Your task to perform on an android device: Open ESPN.com Image 0: 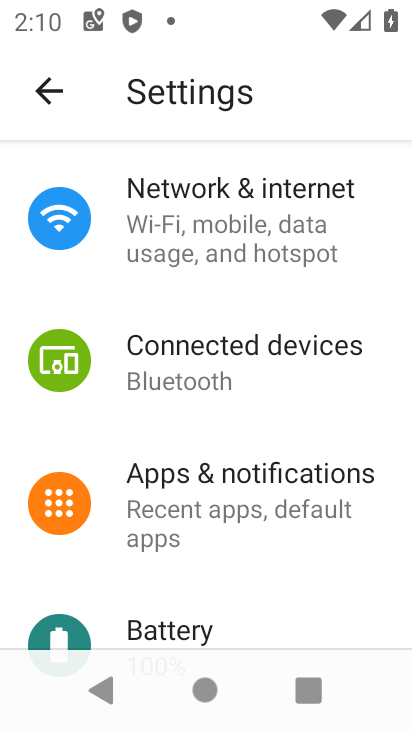
Step 0: press home button
Your task to perform on an android device: Open ESPN.com Image 1: 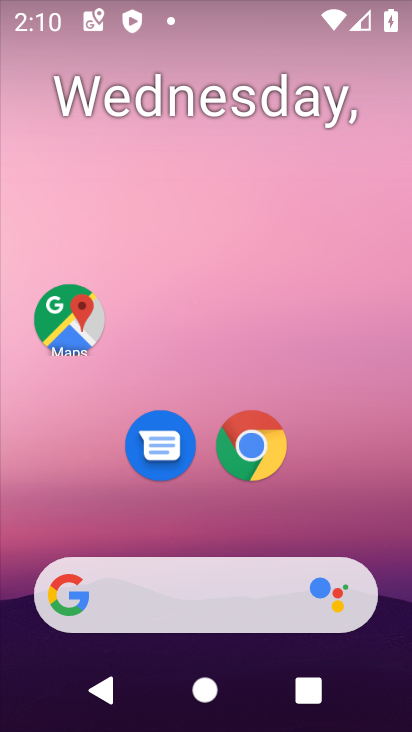
Step 1: click (251, 430)
Your task to perform on an android device: Open ESPN.com Image 2: 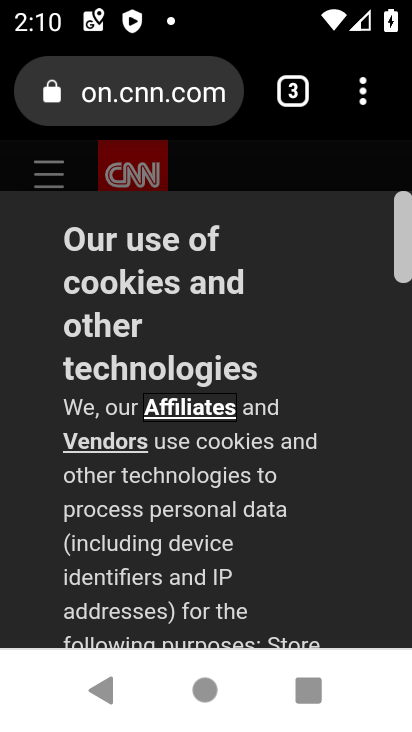
Step 2: click (307, 92)
Your task to perform on an android device: Open ESPN.com Image 3: 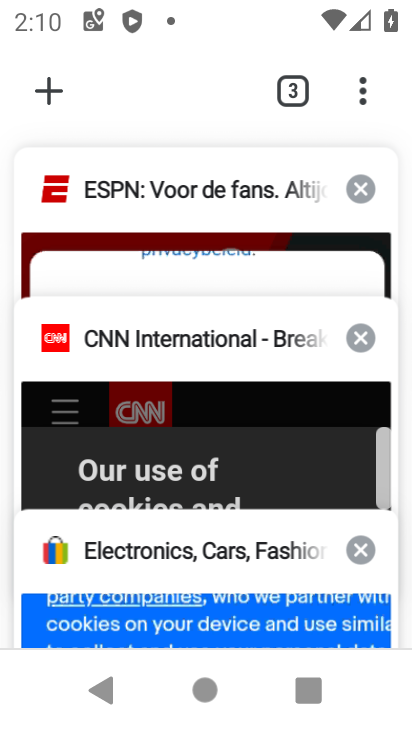
Step 3: drag from (186, 563) to (194, 283)
Your task to perform on an android device: Open ESPN.com Image 4: 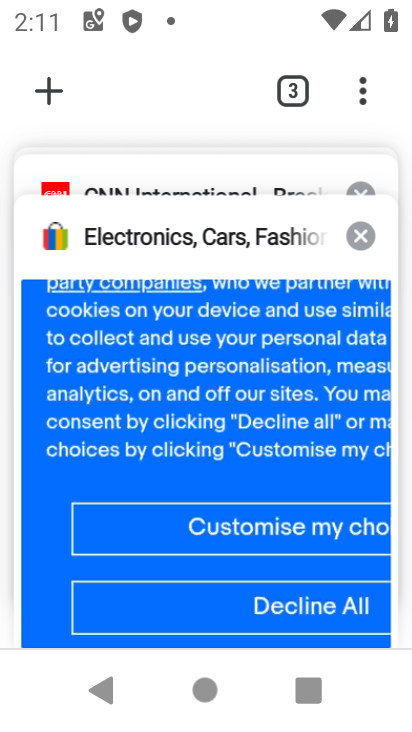
Step 4: click (46, 84)
Your task to perform on an android device: Open ESPN.com Image 5: 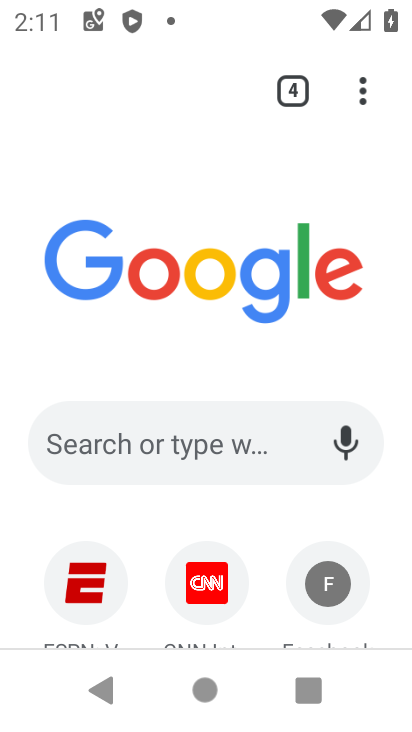
Step 5: click (72, 601)
Your task to perform on an android device: Open ESPN.com Image 6: 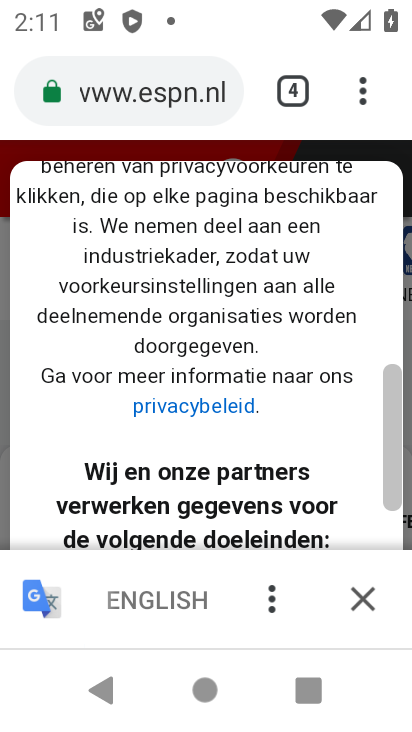
Step 6: task complete